Your task to perform on an android device: Go to Android settings Image 0: 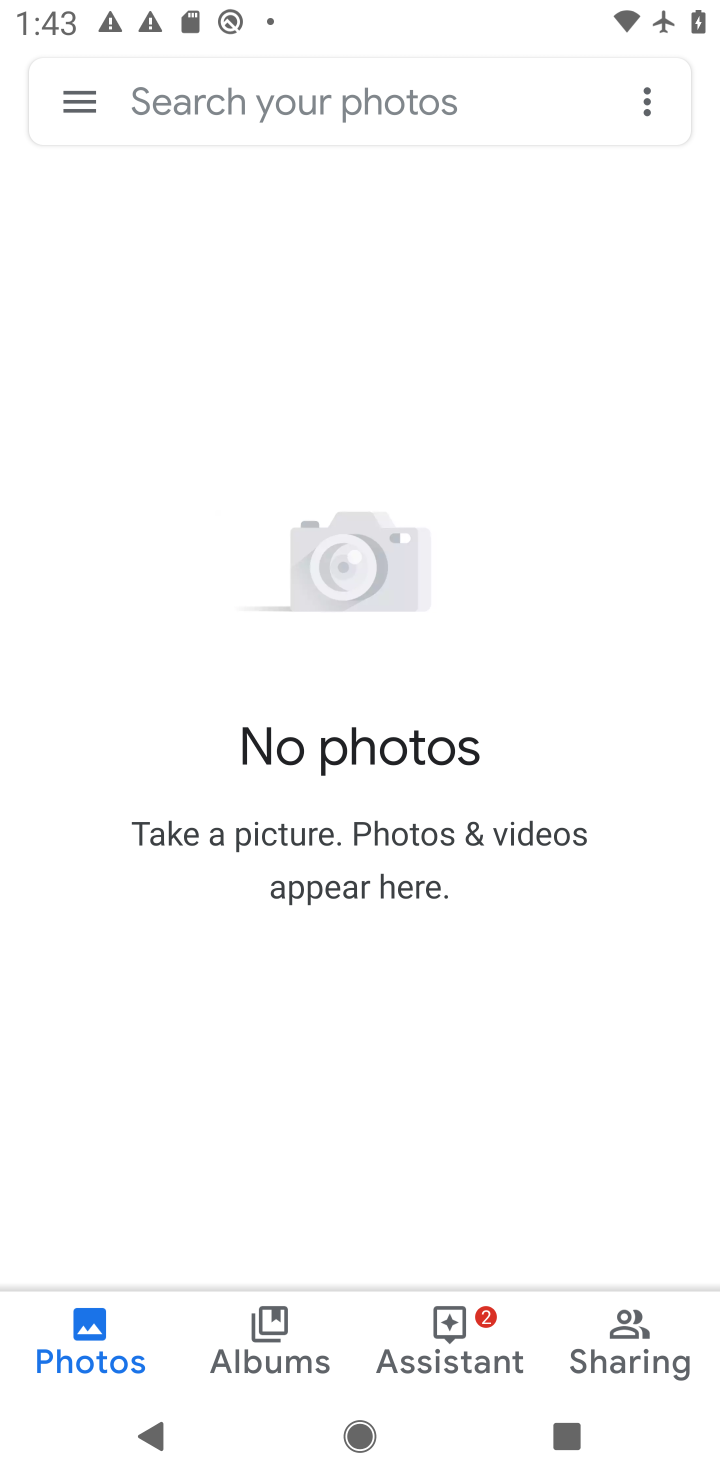
Step 0: press home button
Your task to perform on an android device: Go to Android settings Image 1: 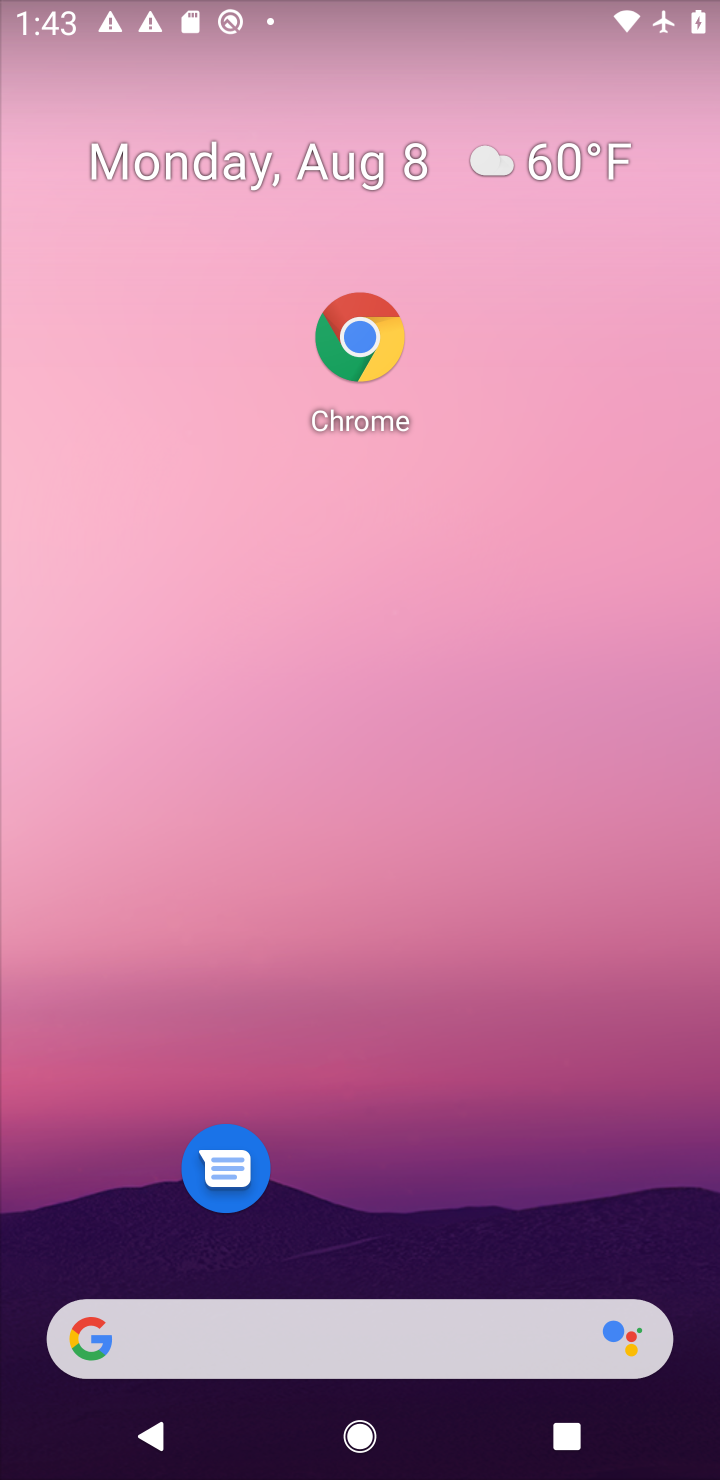
Step 1: drag from (449, 1278) to (532, 229)
Your task to perform on an android device: Go to Android settings Image 2: 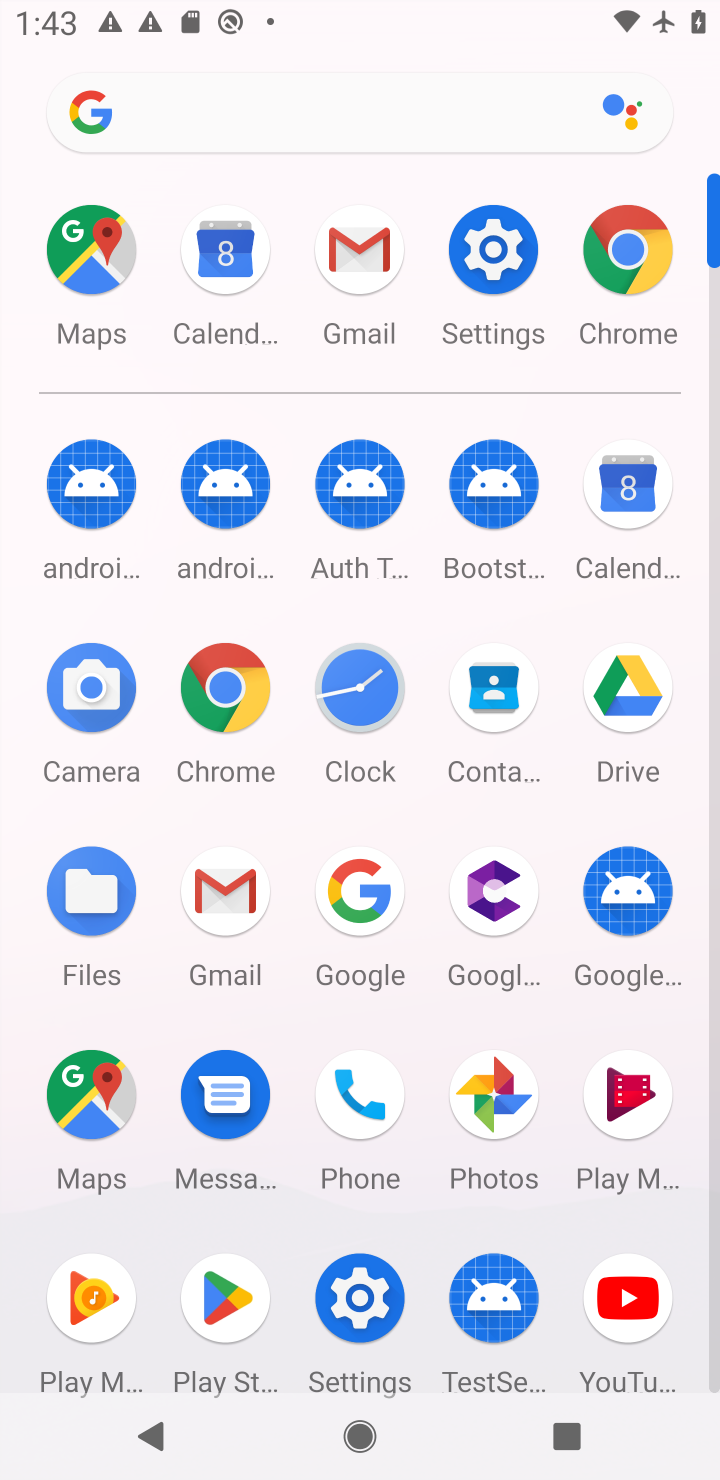
Step 2: click (504, 246)
Your task to perform on an android device: Go to Android settings Image 3: 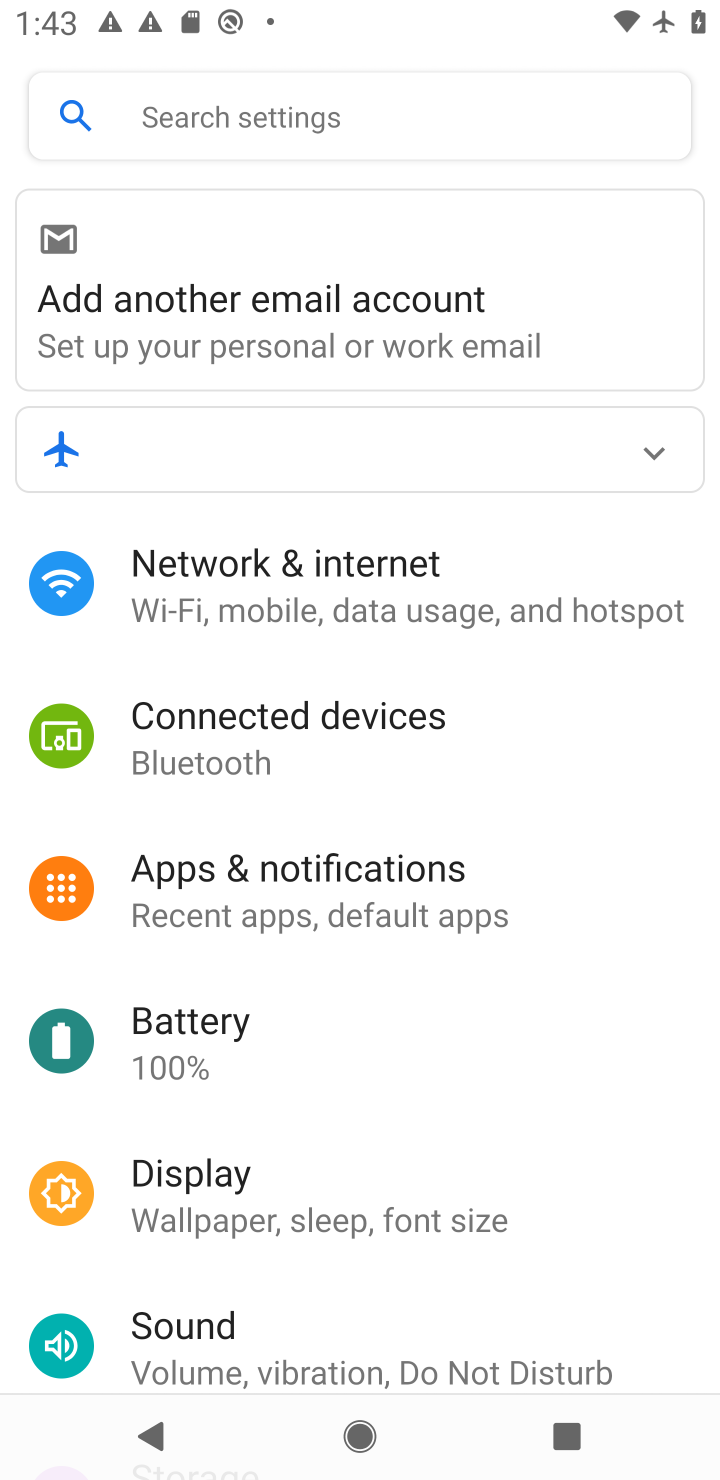
Step 3: task complete